Your task to perform on an android device: allow cookies in the chrome app Image 0: 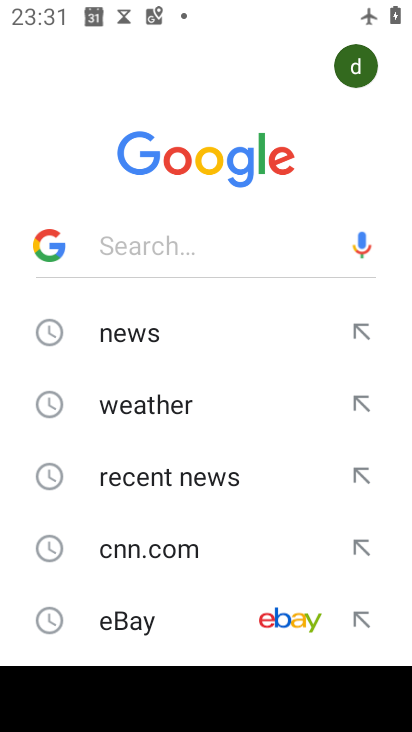
Step 0: press home button
Your task to perform on an android device: allow cookies in the chrome app Image 1: 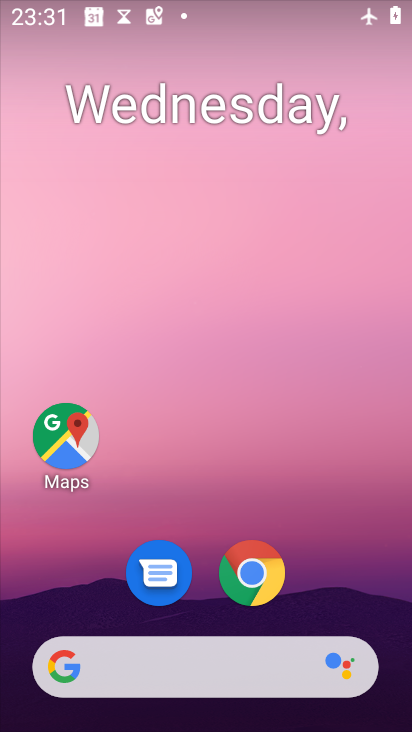
Step 1: drag from (331, 573) to (289, 264)
Your task to perform on an android device: allow cookies in the chrome app Image 2: 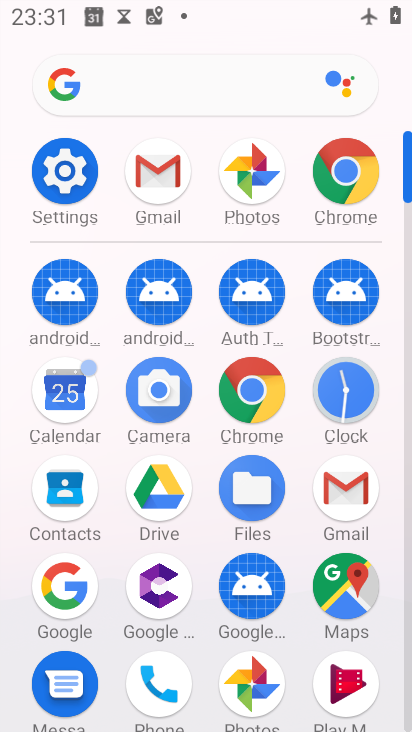
Step 2: click (260, 377)
Your task to perform on an android device: allow cookies in the chrome app Image 3: 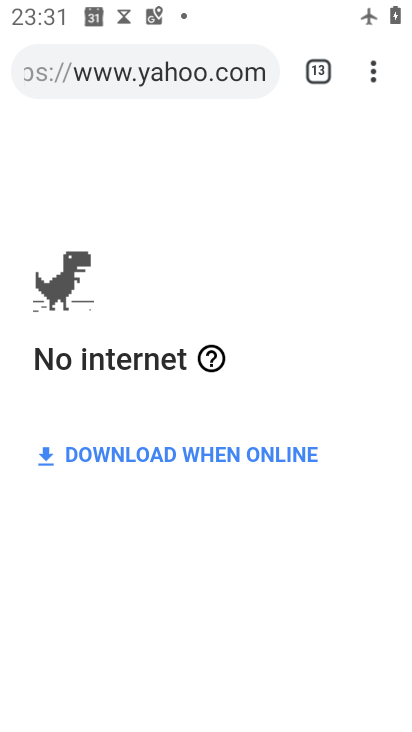
Step 3: click (371, 58)
Your task to perform on an android device: allow cookies in the chrome app Image 4: 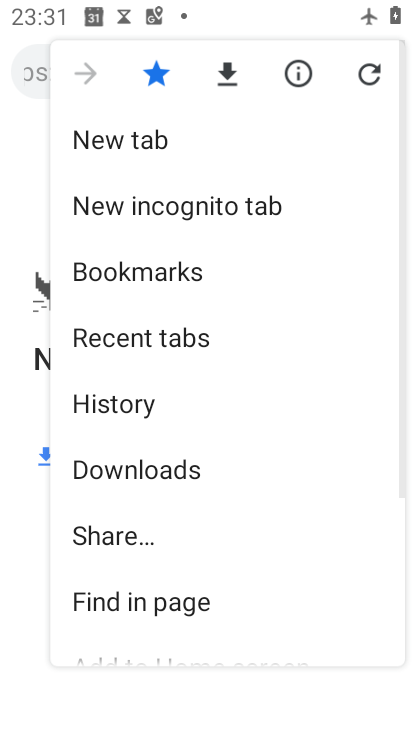
Step 4: drag from (206, 604) to (240, 277)
Your task to perform on an android device: allow cookies in the chrome app Image 5: 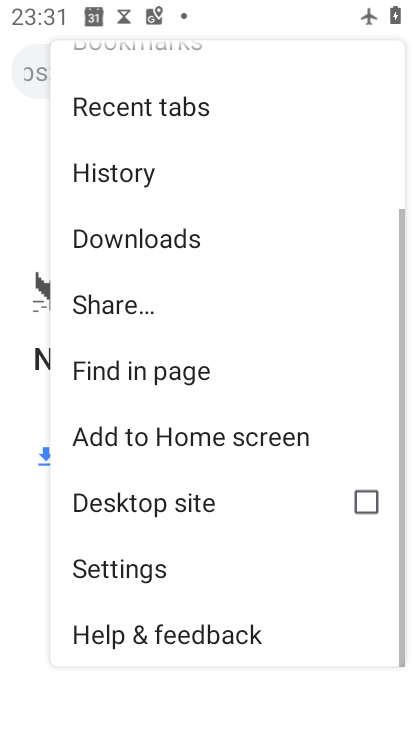
Step 5: click (175, 569)
Your task to perform on an android device: allow cookies in the chrome app Image 6: 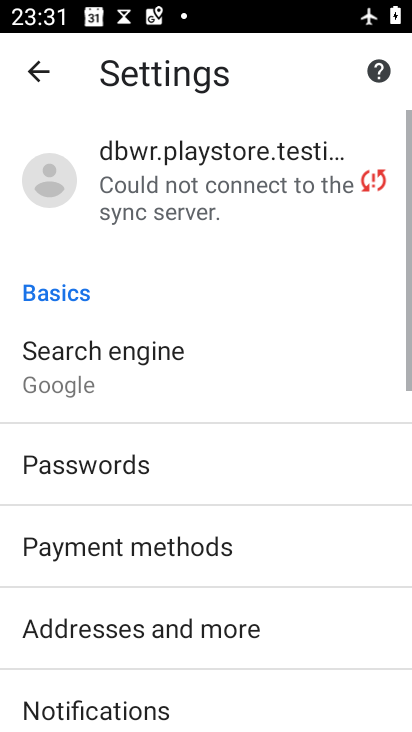
Step 6: drag from (249, 563) to (255, 255)
Your task to perform on an android device: allow cookies in the chrome app Image 7: 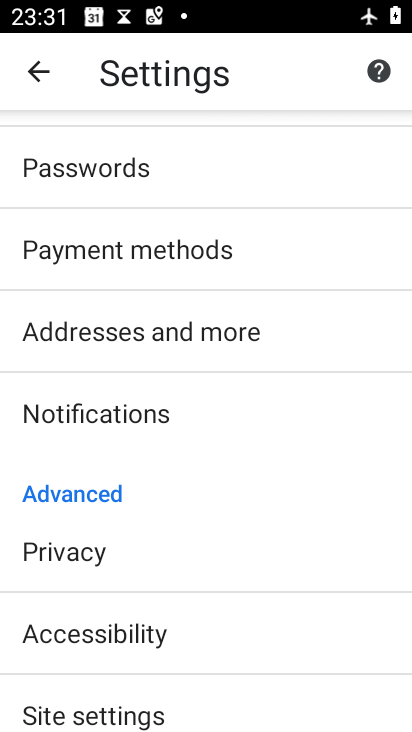
Step 7: drag from (123, 637) to (151, 333)
Your task to perform on an android device: allow cookies in the chrome app Image 8: 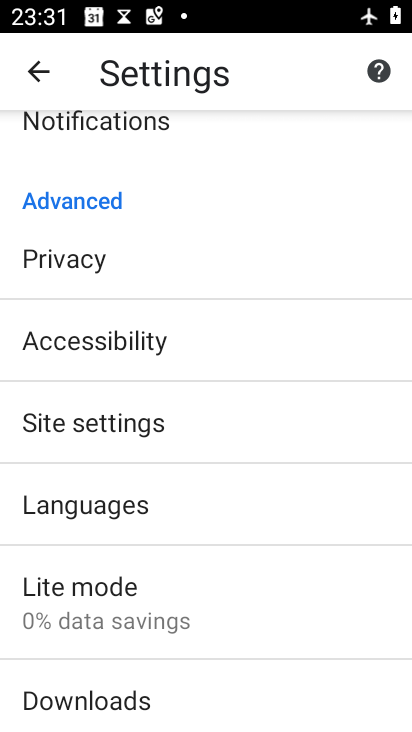
Step 8: click (119, 430)
Your task to perform on an android device: allow cookies in the chrome app Image 9: 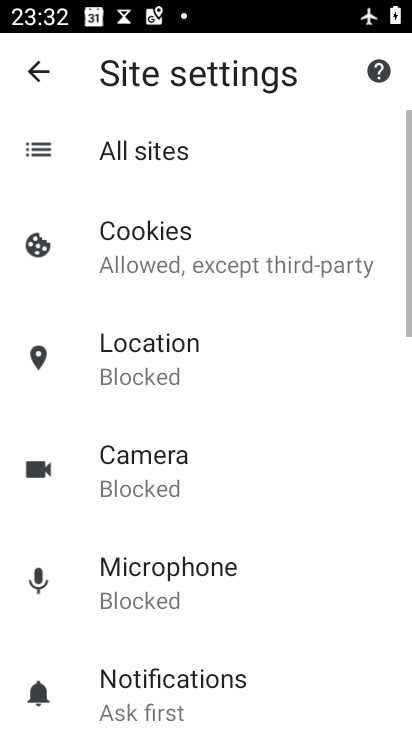
Step 9: click (167, 235)
Your task to perform on an android device: allow cookies in the chrome app Image 10: 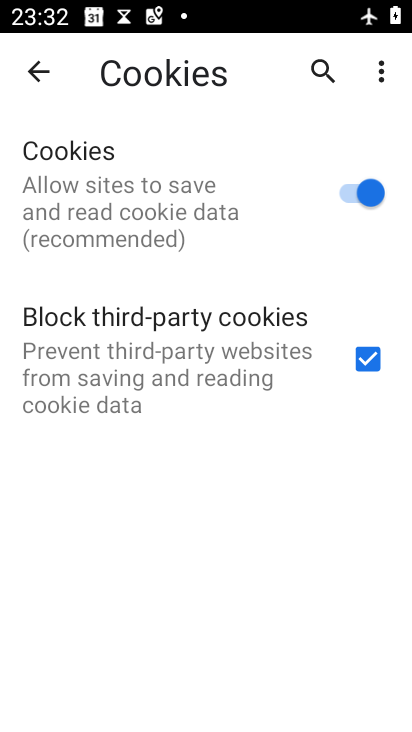
Step 10: task complete